Your task to perform on an android device: Open the map Image 0: 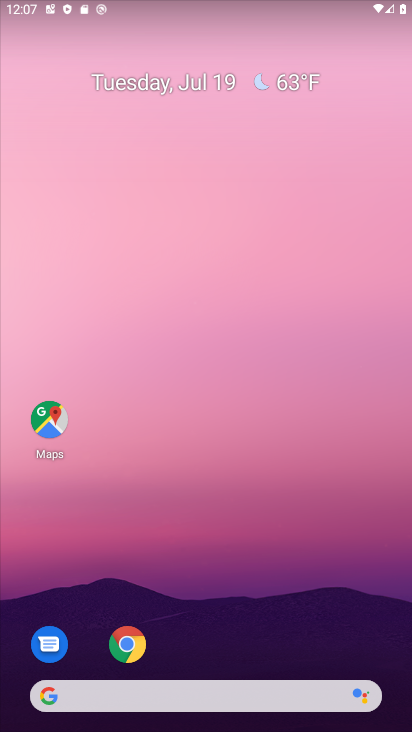
Step 0: drag from (228, 728) to (226, 280)
Your task to perform on an android device: Open the map Image 1: 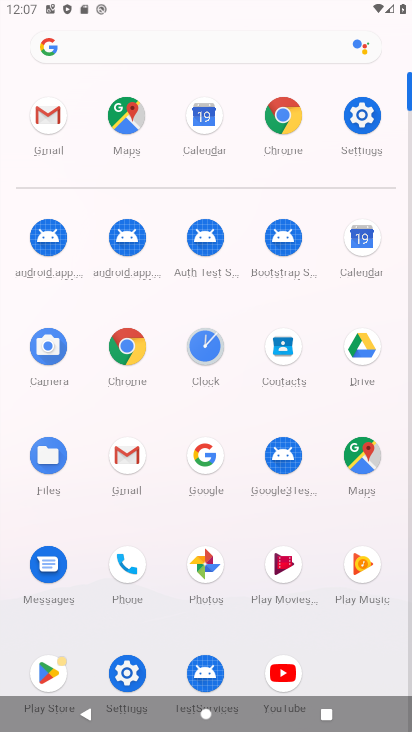
Step 1: click (360, 458)
Your task to perform on an android device: Open the map Image 2: 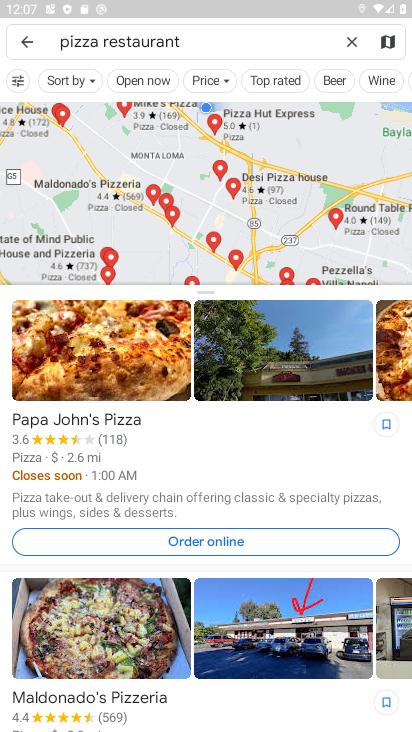
Step 2: task complete